Your task to perform on an android device: see creations saved in the google photos Image 0: 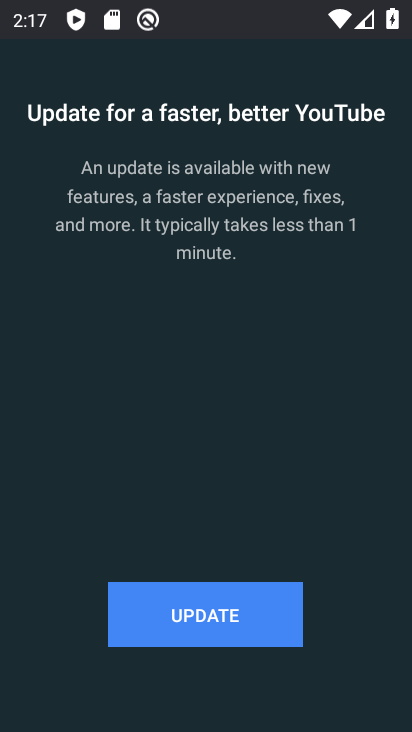
Step 0: press home button
Your task to perform on an android device: see creations saved in the google photos Image 1: 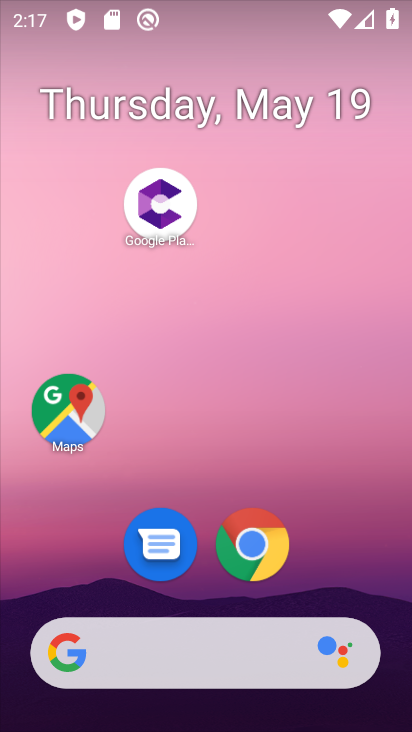
Step 1: drag from (315, 698) to (277, 171)
Your task to perform on an android device: see creations saved in the google photos Image 2: 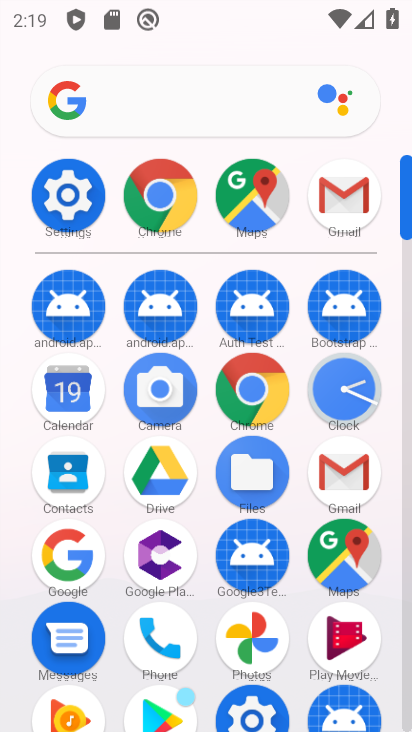
Step 2: click (250, 634)
Your task to perform on an android device: see creations saved in the google photos Image 3: 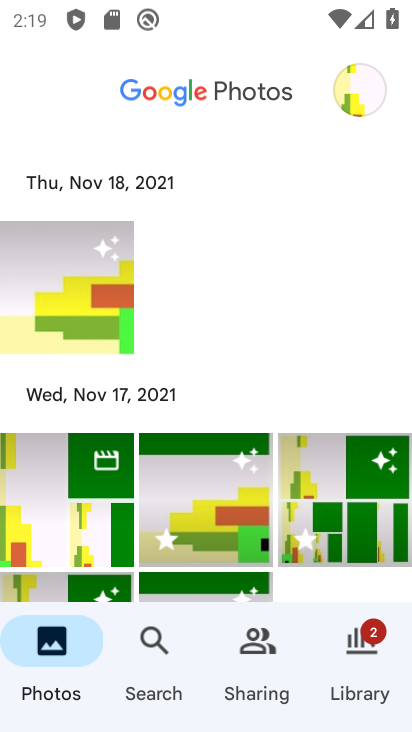
Step 3: click (282, 468)
Your task to perform on an android device: see creations saved in the google photos Image 4: 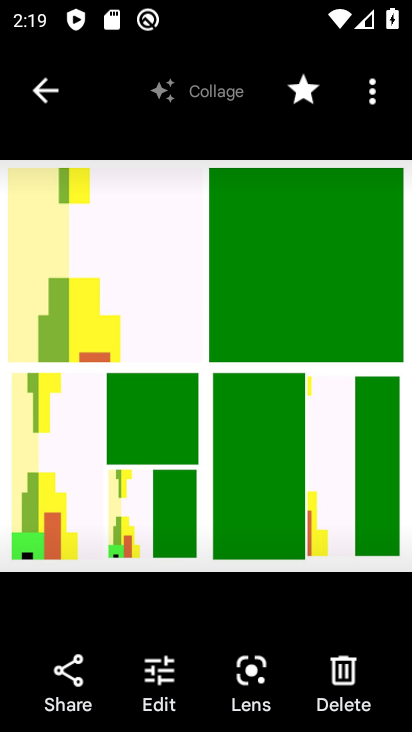
Step 4: click (371, 93)
Your task to perform on an android device: see creations saved in the google photos Image 5: 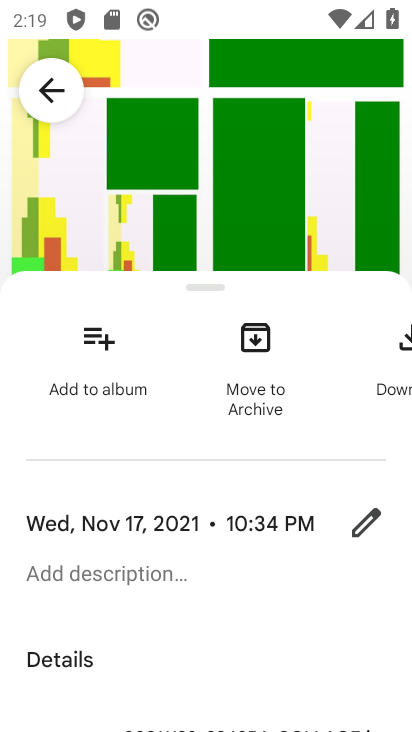
Step 5: task complete